Your task to perform on an android device: change notification settings in the gmail app Image 0: 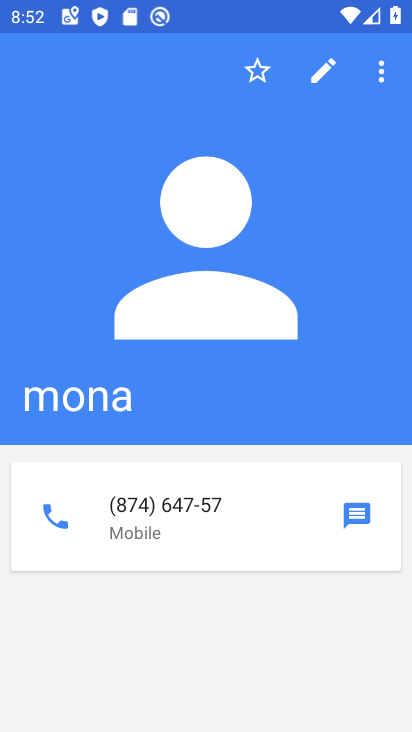
Step 0: press home button
Your task to perform on an android device: change notification settings in the gmail app Image 1: 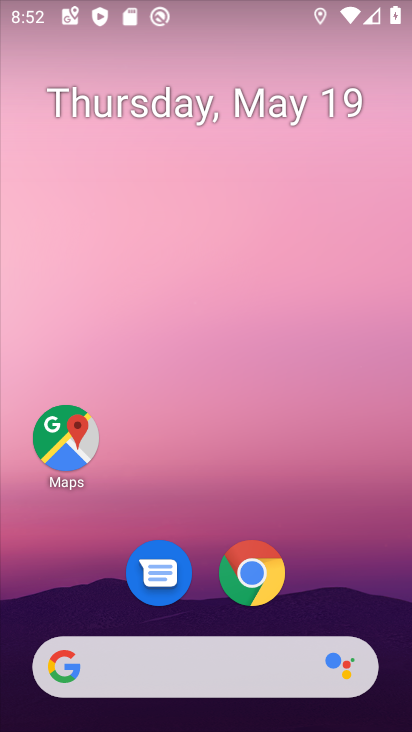
Step 1: drag from (319, 609) to (295, 2)
Your task to perform on an android device: change notification settings in the gmail app Image 2: 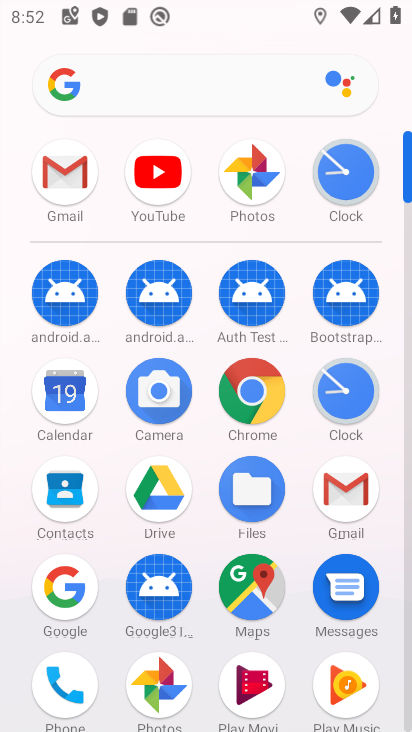
Step 2: click (68, 175)
Your task to perform on an android device: change notification settings in the gmail app Image 3: 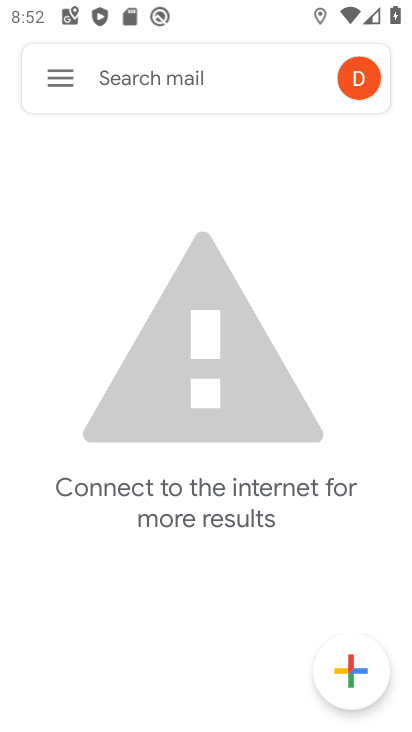
Step 3: click (52, 63)
Your task to perform on an android device: change notification settings in the gmail app Image 4: 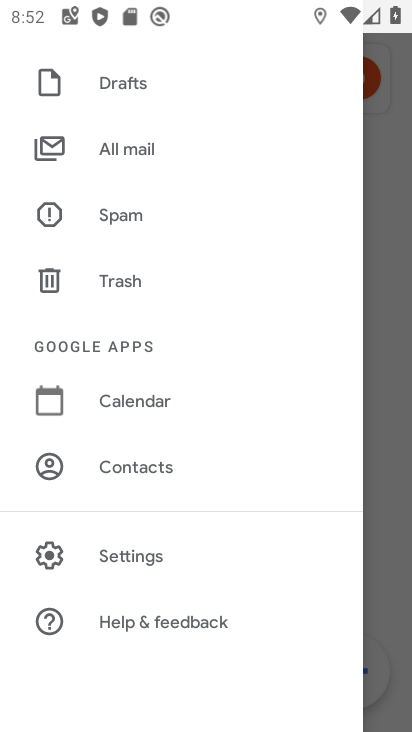
Step 4: click (93, 554)
Your task to perform on an android device: change notification settings in the gmail app Image 5: 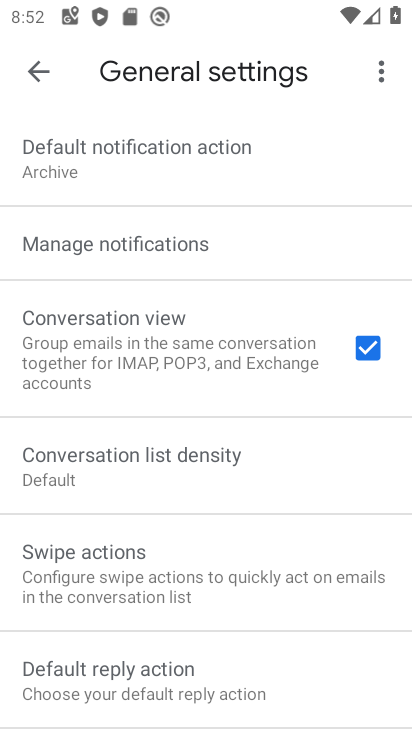
Step 5: click (112, 241)
Your task to perform on an android device: change notification settings in the gmail app Image 6: 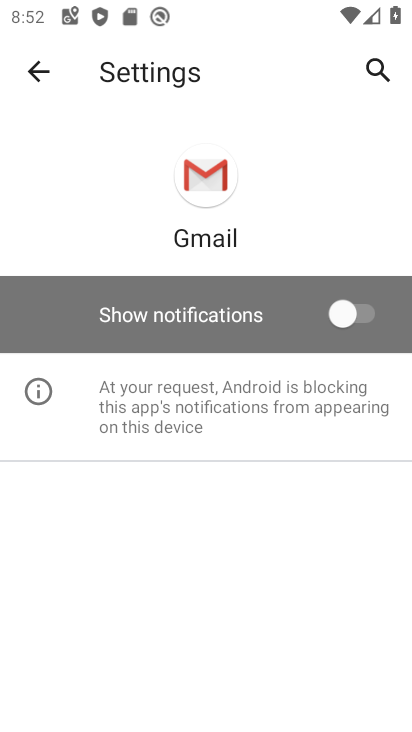
Step 6: click (358, 302)
Your task to perform on an android device: change notification settings in the gmail app Image 7: 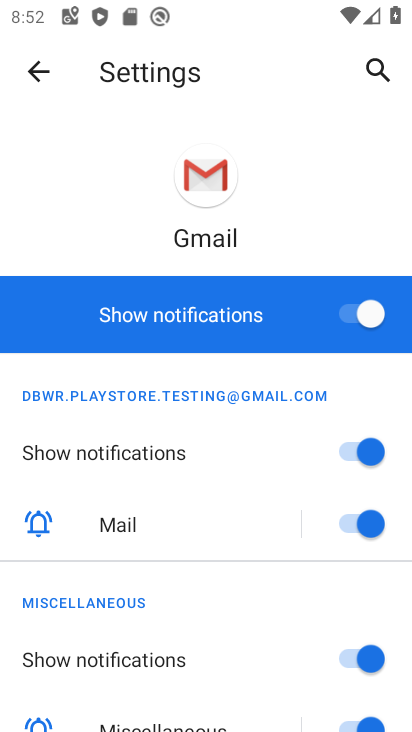
Step 7: task complete